Your task to perform on an android device: move a message to another label in the gmail app Image 0: 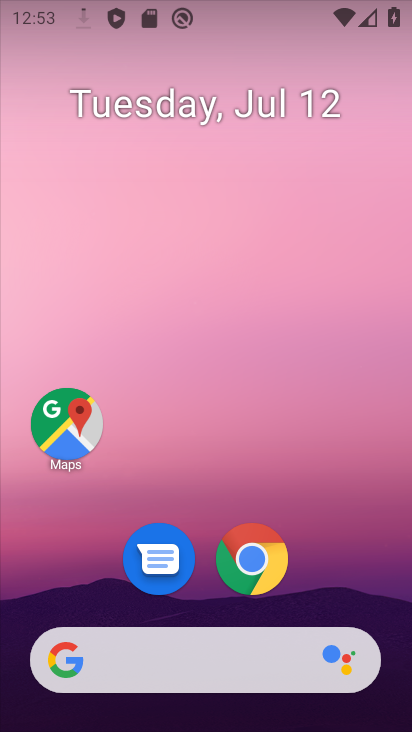
Step 0: drag from (387, 606) to (355, 171)
Your task to perform on an android device: move a message to another label in the gmail app Image 1: 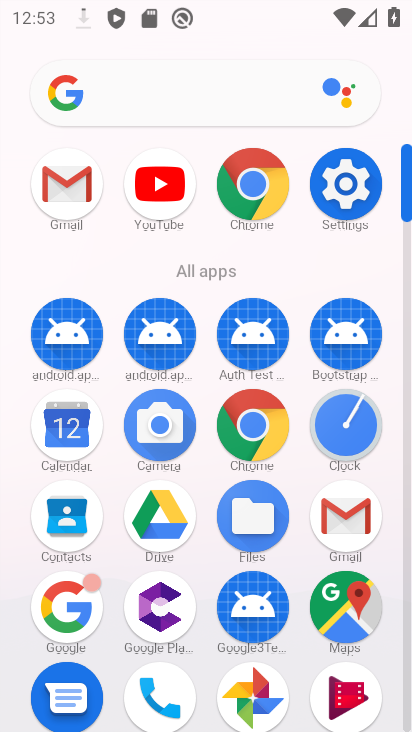
Step 1: click (346, 513)
Your task to perform on an android device: move a message to another label in the gmail app Image 2: 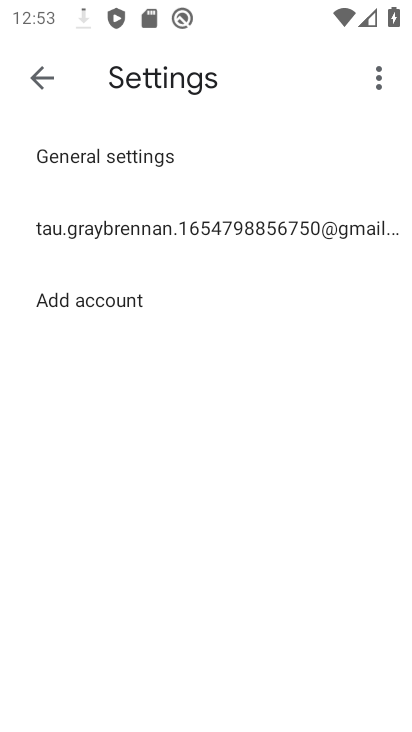
Step 2: press back button
Your task to perform on an android device: move a message to another label in the gmail app Image 3: 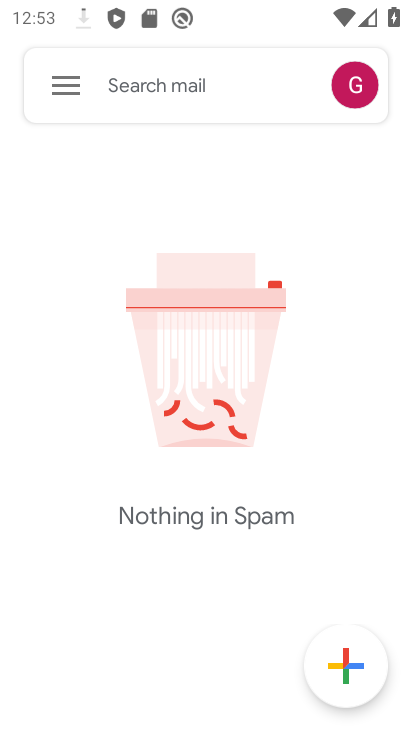
Step 3: click (58, 83)
Your task to perform on an android device: move a message to another label in the gmail app Image 4: 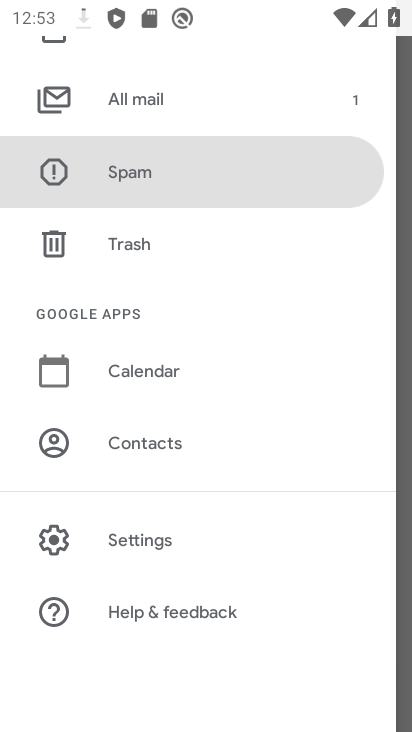
Step 4: drag from (298, 269) to (315, 428)
Your task to perform on an android device: move a message to another label in the gmail app Image 5: 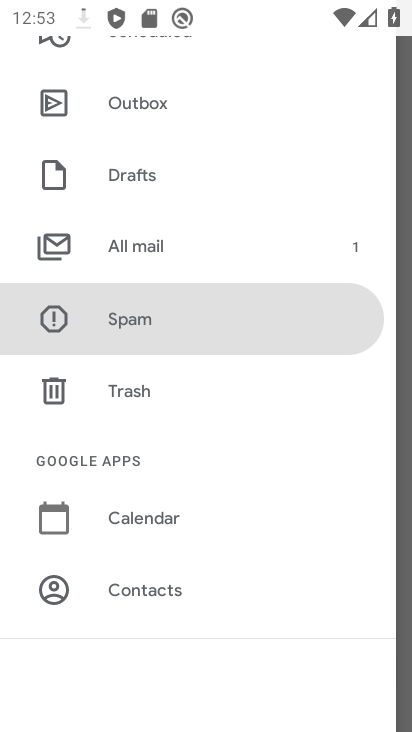
Step 5: drag from (286, 195) to (286, 348)
Your task to perform on an android device: move a message to another label in the gmail app Image 6: 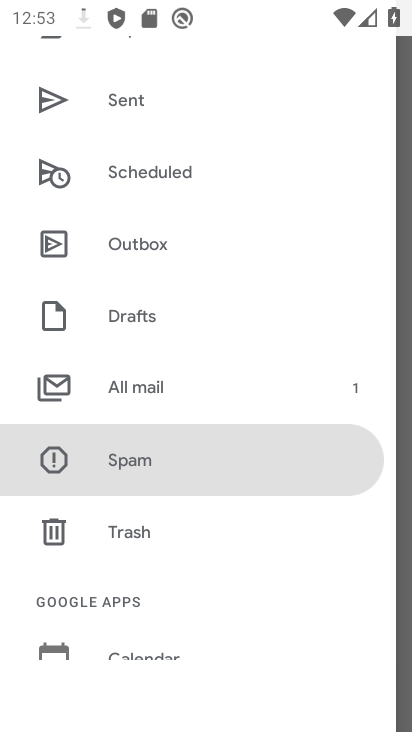
Step 6: drag from (269, 199) to (274, 382)
Your task to perform on an android device: move a message to another label in the gmail app Image 7: 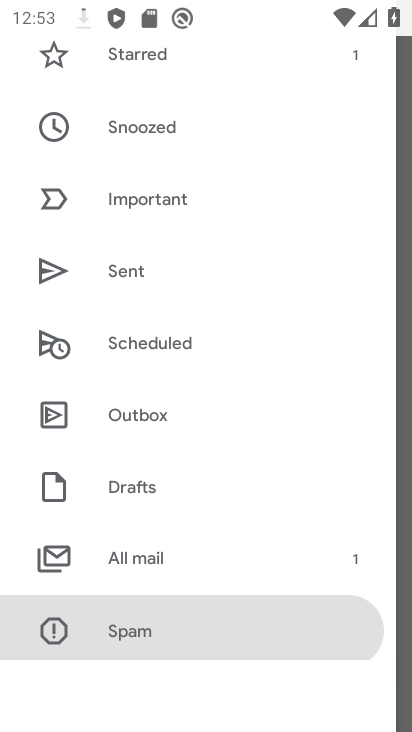
Step 7: drag from (278, 163) to (271, 327)
Your task to perform on an android device: move a message to another label in the gmail app Image 8: 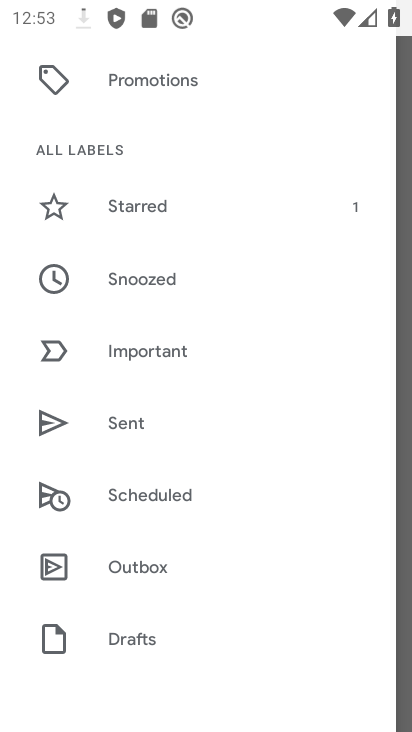
Step 8: drag from (216, 121) to (228, 330)
Your task to perform on an android device: move a message to another label in the gmail app Image 9: 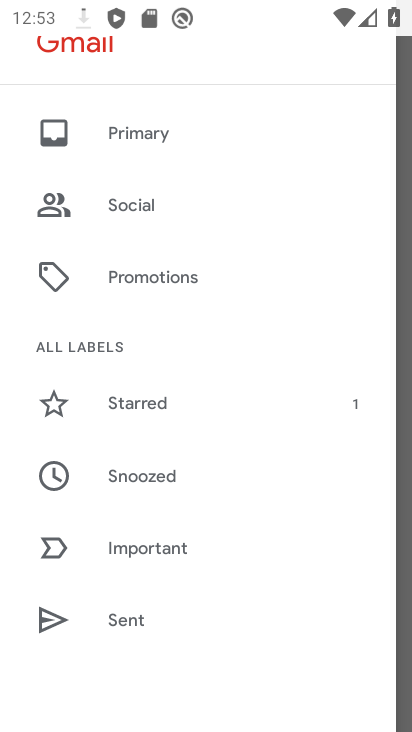
Step 9: click (150, 138)
Your task to perform on an android device: move a message to another label in the gmail app Image 10: 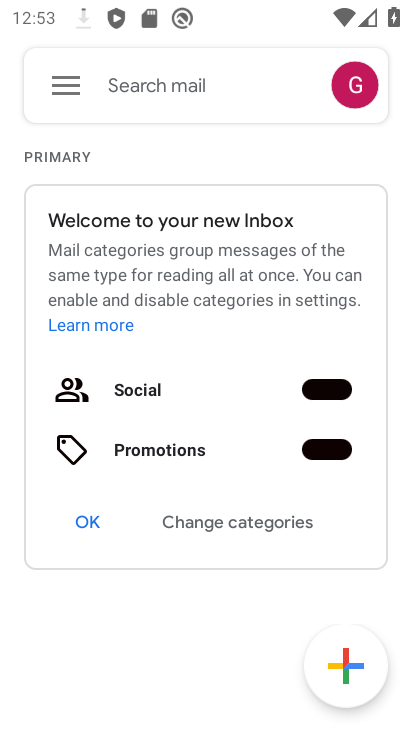
Step 10: click (96, 528)
Your task to perform on an android device: move a message to another label in the gmail app Image 11: 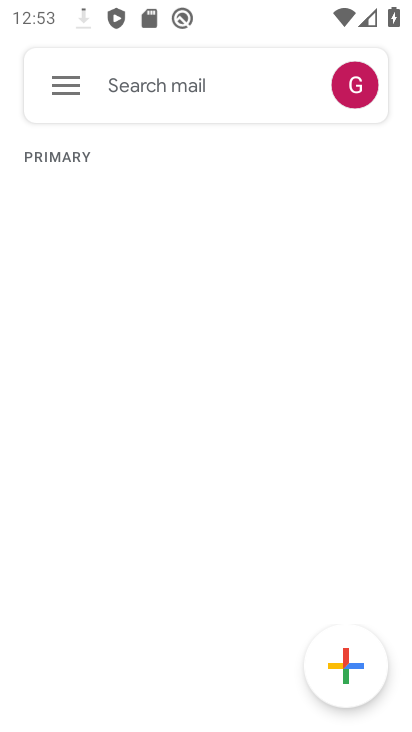
Step 11: task complete